Your task to perform on an android device: turn off location Image 0: 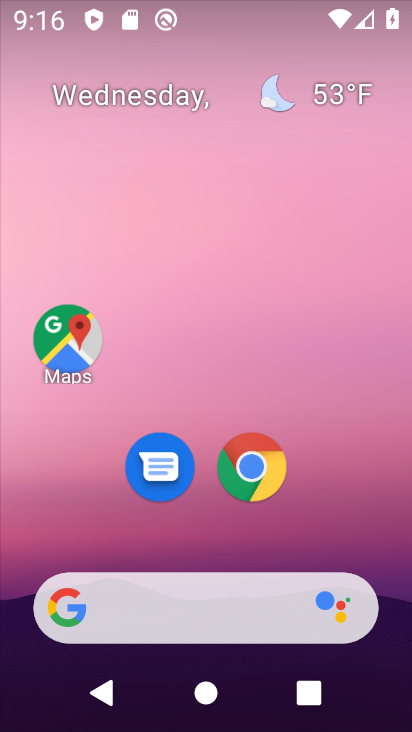
Step 0: press home button
Your task to perform on an android device: turn off location Image 1: 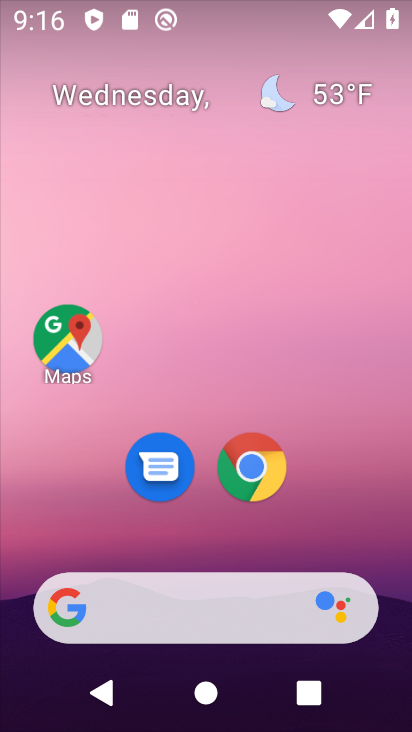
Step 1: drag from (373, 498) to (396, 0)
Your task to perform on an android device: turn off location Image 2: 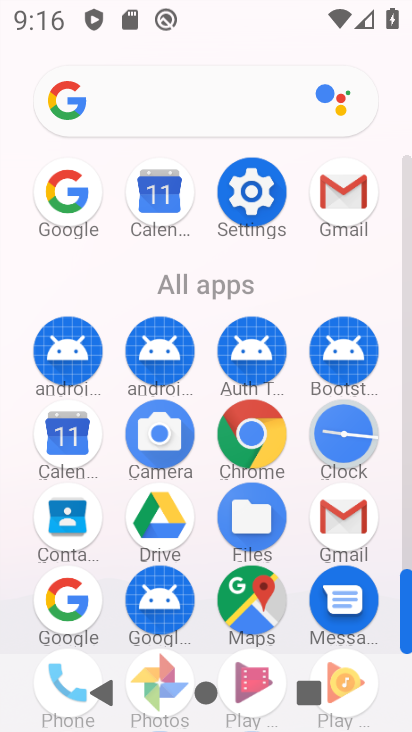
Step 2: click (273, 199)
Your task to perform on an android device: turn off location Image 3: 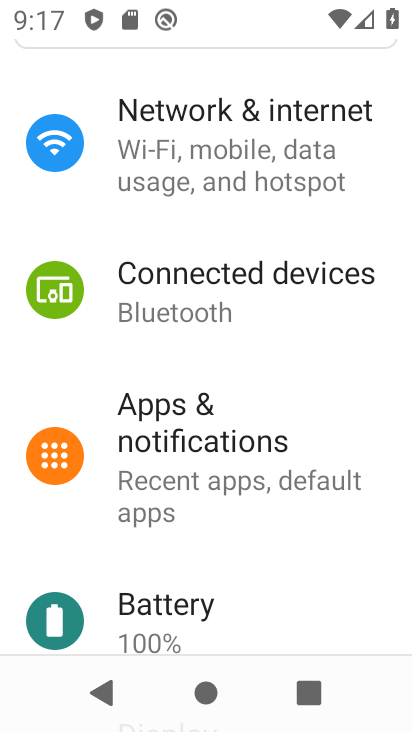
Step 3: drag from (270, 124) to (276, 261)
Your task to perform on an android device: turn off location Image 4: 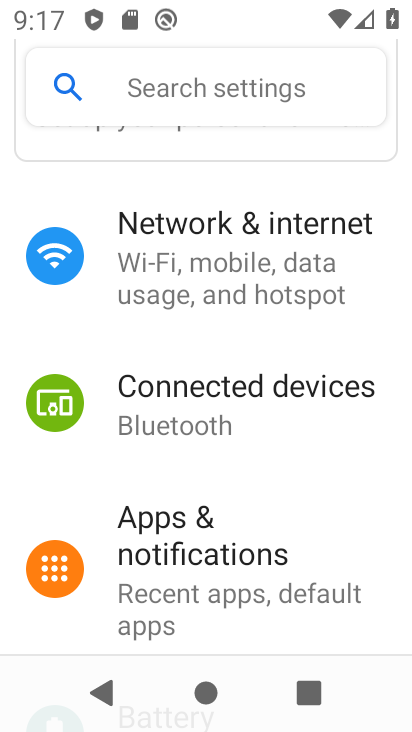
Step 4: drag from (280, 536) to (243, 176)
Your task to perform on an android device: turn off location Image 5: 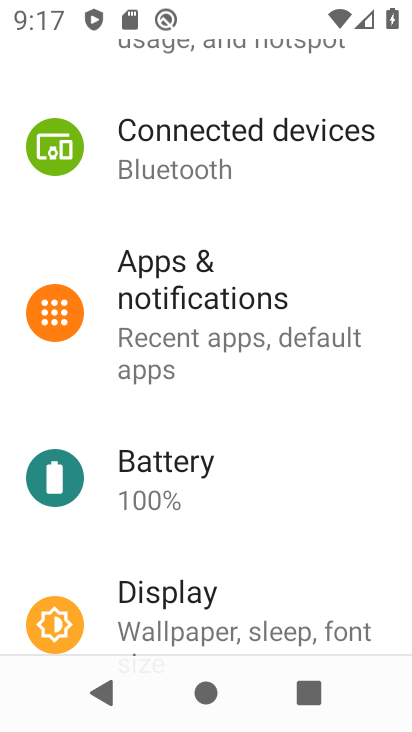
Step 5: drag from (268, 540) to (304, 230)
Your task to perform on an android device: turn off location Image 6: 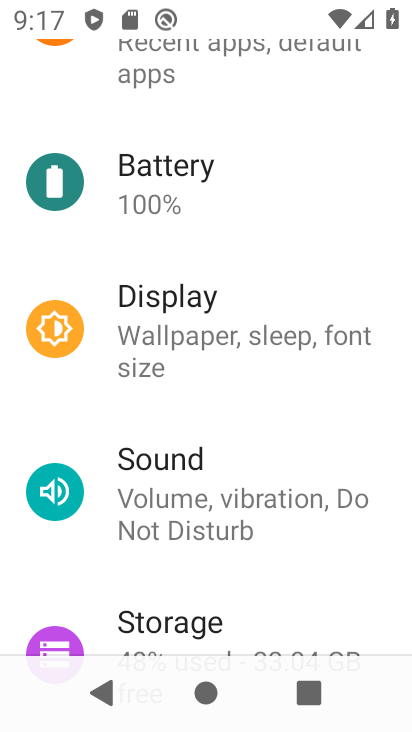
Step 6: drag from (230, 487) to (275, 145)
Your task to perform on an android device: turn off location Image 7: 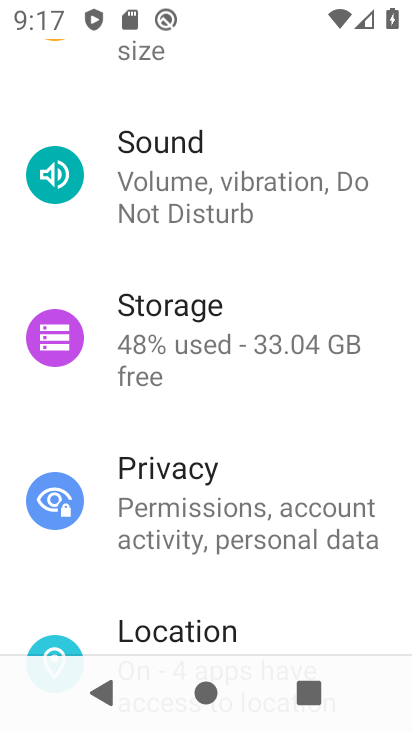
Step 7: drag from (238, 601) to (257, 359)
Your task to perform on an android device: turn off location Image 8: 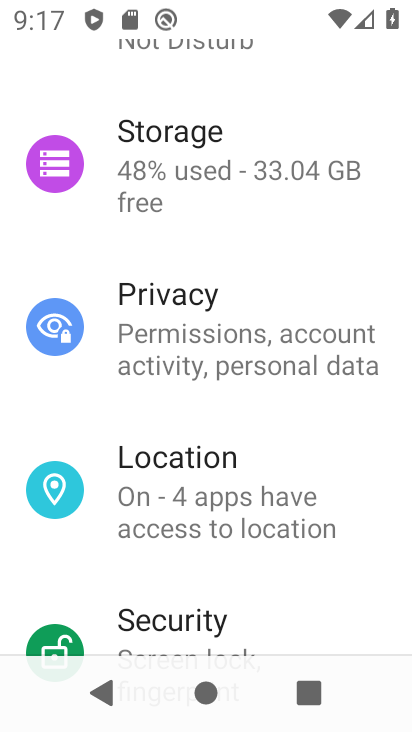
Step 8: click (122, 487)
Your task to perform on an android device: turn off location Image 9: 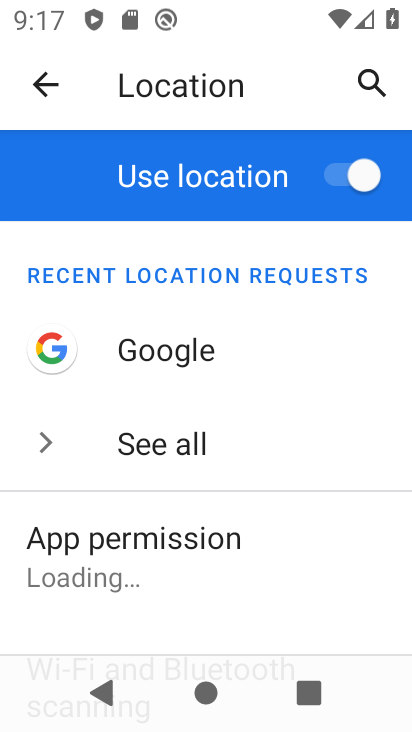
Step 9: click (358, 137)
Your task to perform on an android device: turn off location Image 10: 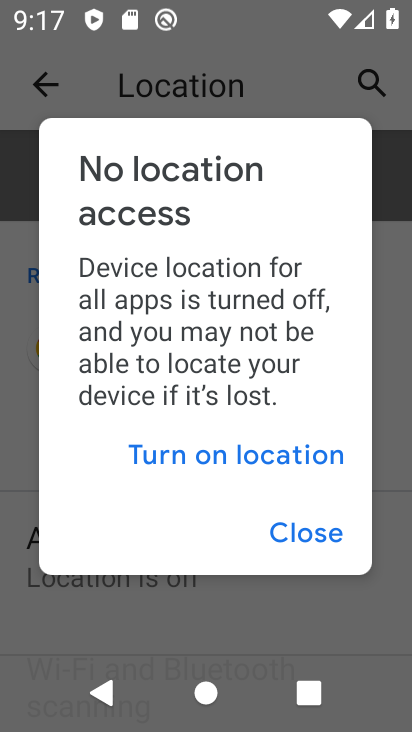
Step 10: task complete